Your task to perform on an android device: Show me popular videos on Youtube Image 0: 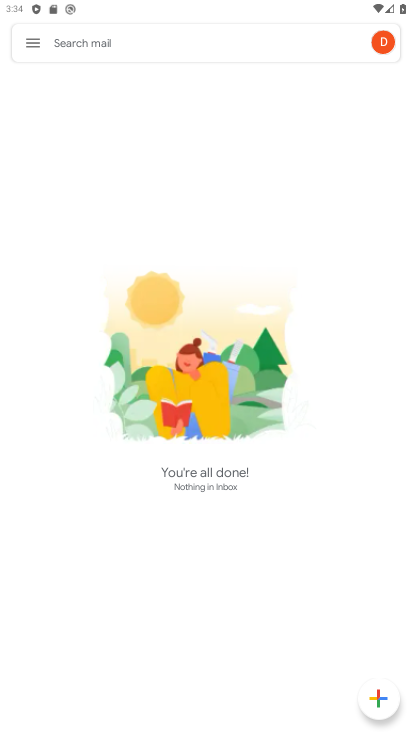
Step 0: press home button
Your task to perform on an android device: Show me popular videos on Youtube Image 1: 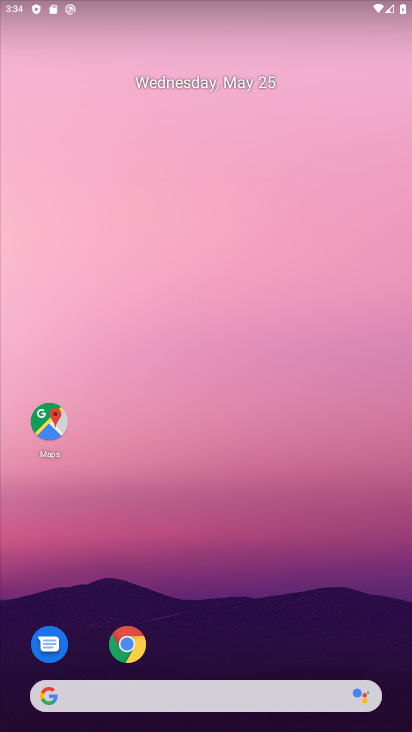
Step 1: drag from (265, 654) to (322, 15)
Your task to perform on an android device: Show me popular videos on Youtube Image 2: 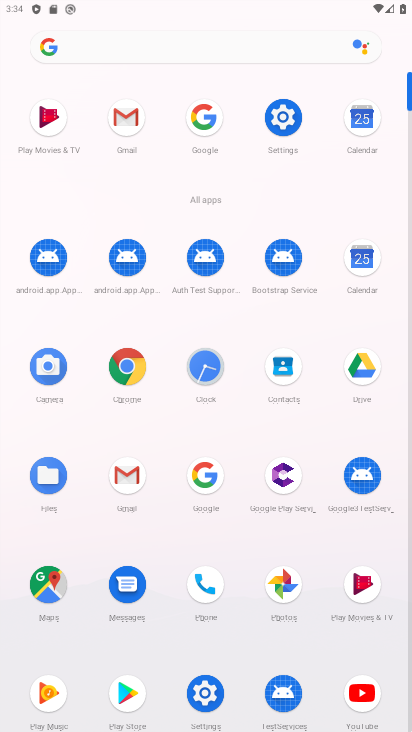
Step 2: click (364, 695)
Your task to perform on an android device: Show me popular videos on Youtube Image 3: 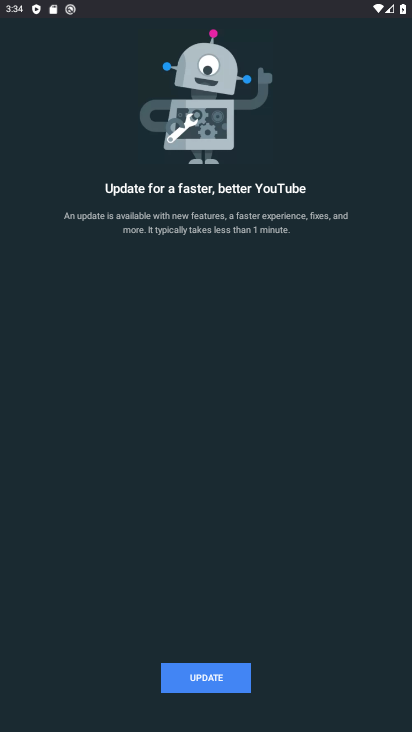
Step 3: click (233, 671)
Your task to perform on an android device: Show me popular videos on Youtube Image 4: 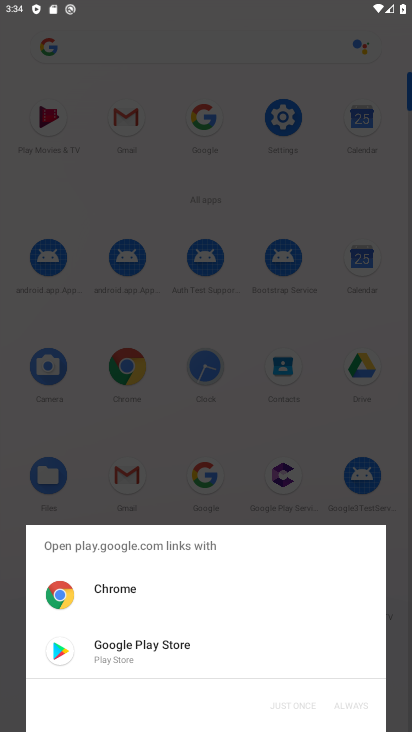
Step 4: click (112, 645)
Your task to perform on an android device: Show me popular videos on Youtube Image 5: 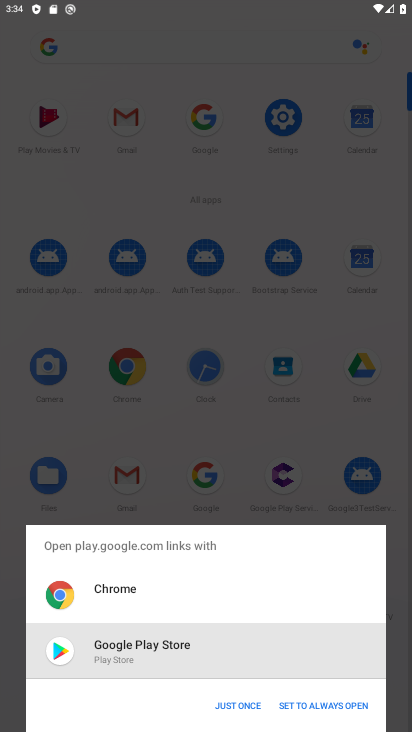
Step 5: click (237, 705)
Your task to perform on an android device: Show me popular videos on Youtube Image 6: 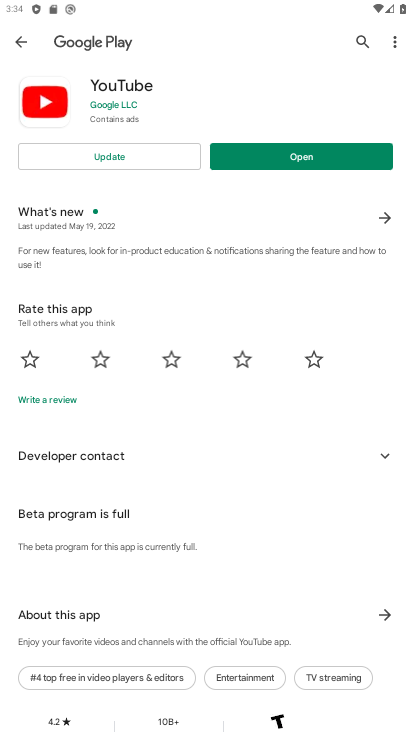
Step 6: click (126, 159)
Your task to perform on an android device: Show me popular videos on Youtube Image 7: 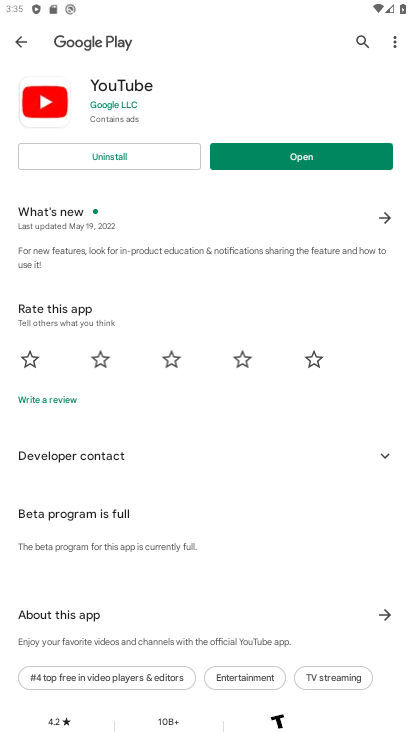
Step 7: click (356, 157)
Your task to perform on an android device: Show me popular videos on Youtube Image 8: 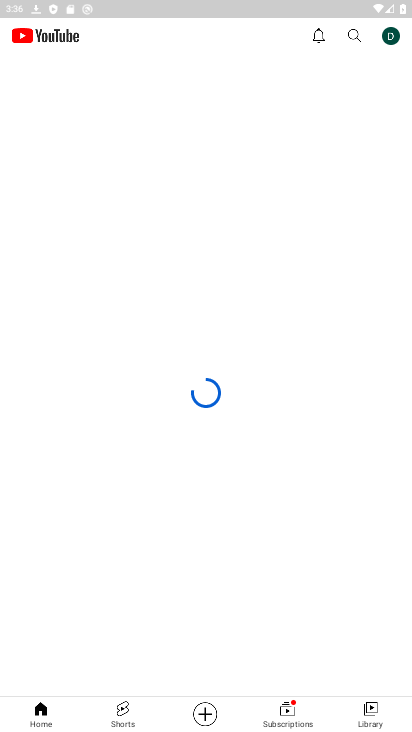
Step 8: click (38, 717)
Your task to perform on an android device: Show me popular videos on Youtube Image 9: 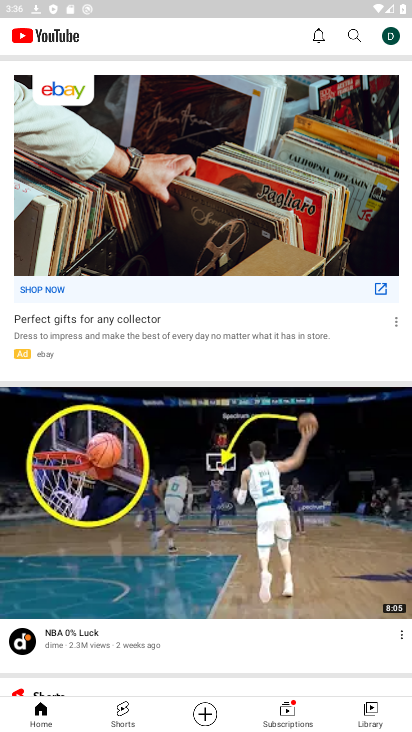
Step 9: task complete